Your task to perform on an android device: Open my contact list Image 0: 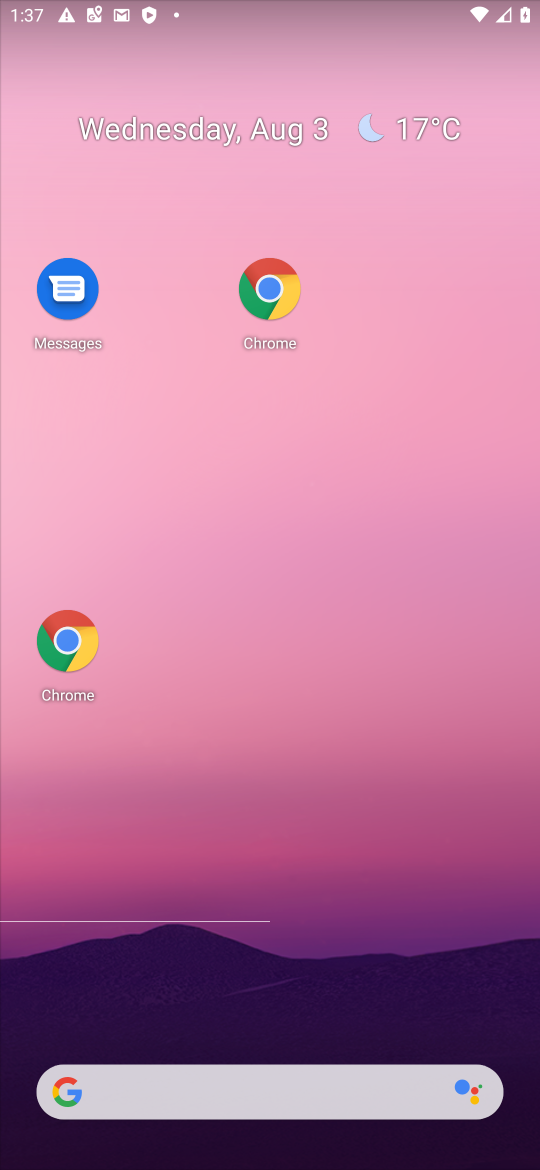
Step 0: drag from (357, 938) to (349, 185)
Your task to perform on an android device: Open my contact list Image 1: 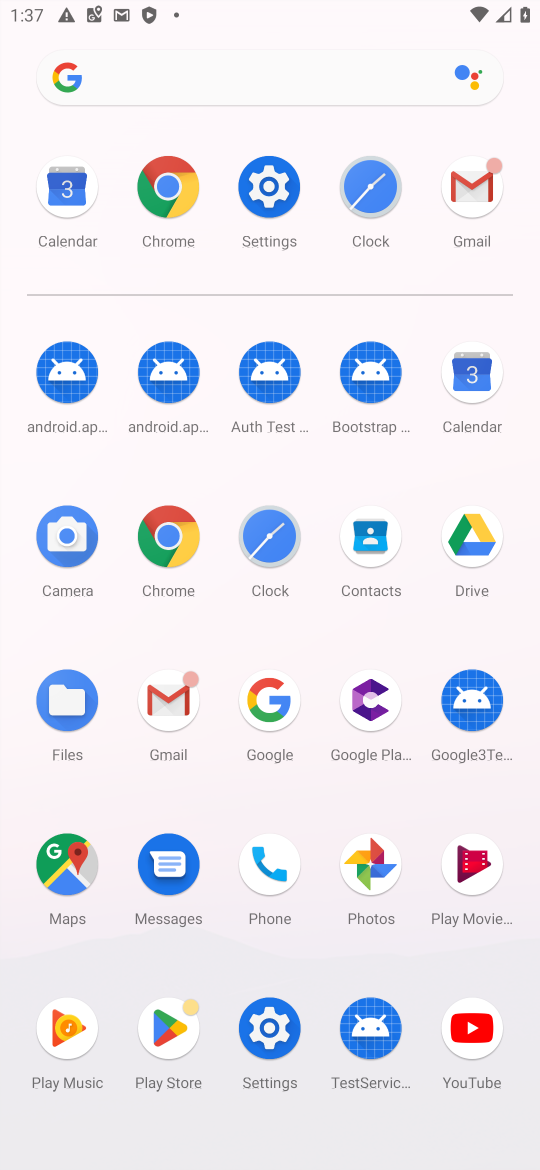
Step 1: click (356, 587)
Your task to perform on an android device: Open my contact list Image 2: 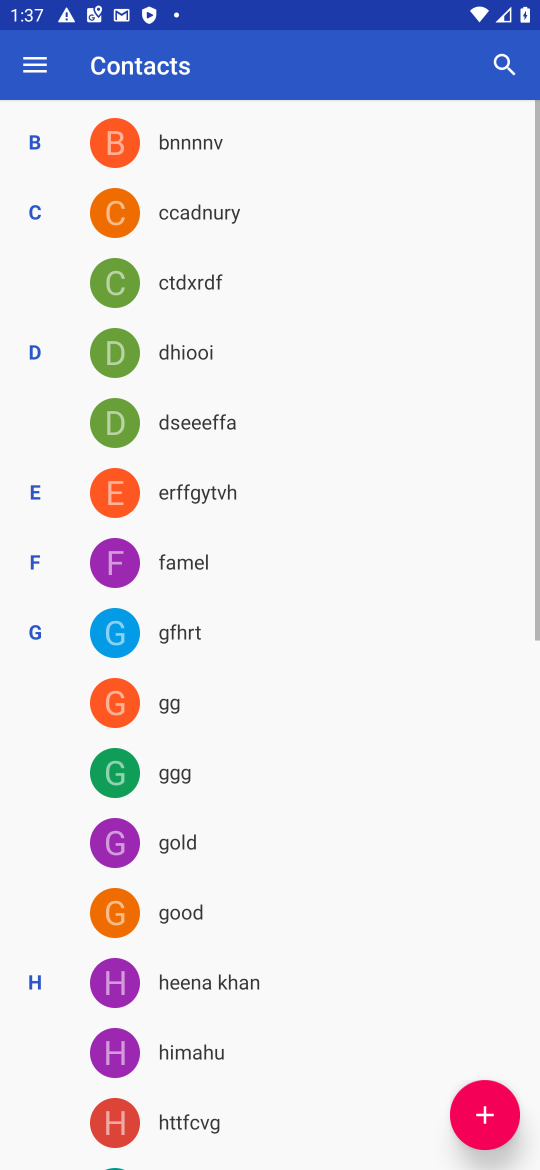
Step 2: task complete